Your task to perform on an android device: Go to Amazon Image 0: 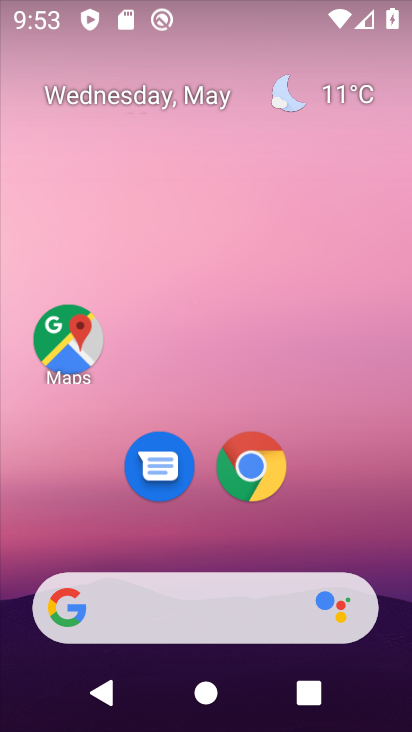
Step 0: drag from (312, 582) to (268, 2)
Your task to perform on an android device: Go to Amazon Image 1: 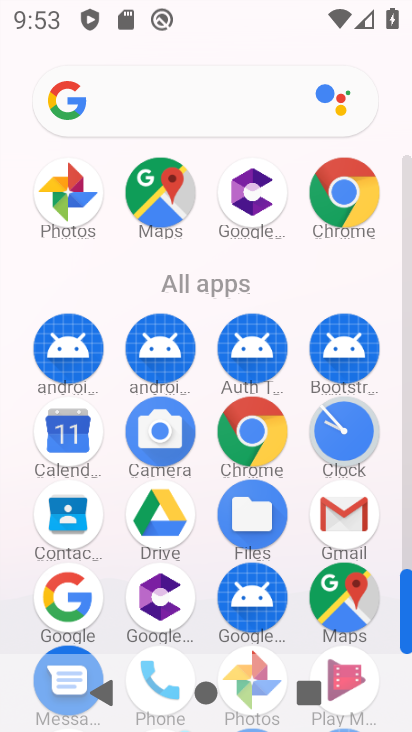
Step 1: click (339, 466)
Your task to perform on an android device: Go to Amazon Image 2: 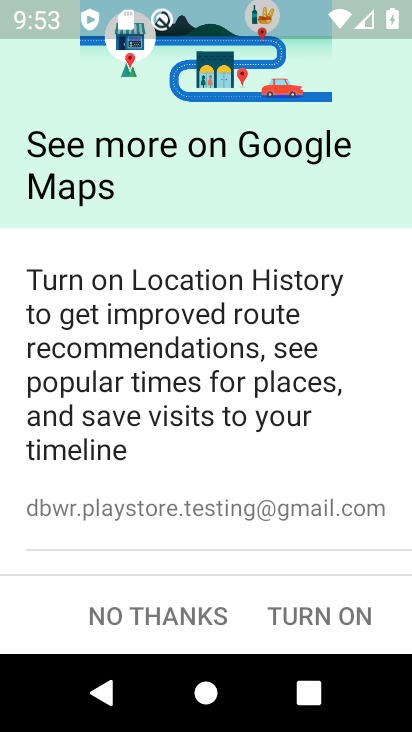
Step 2: press home button
Your task to perform on an android device: Go to Amazon Image 3: 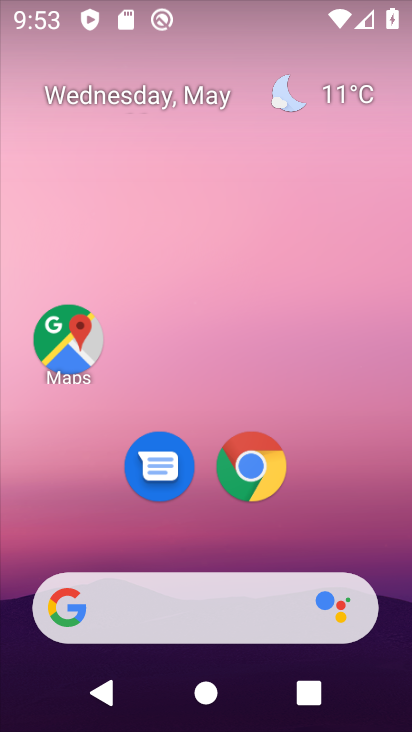
Step 3: click (255, 490)
Your task to perform on an android device: Go to Amazon Image 4: 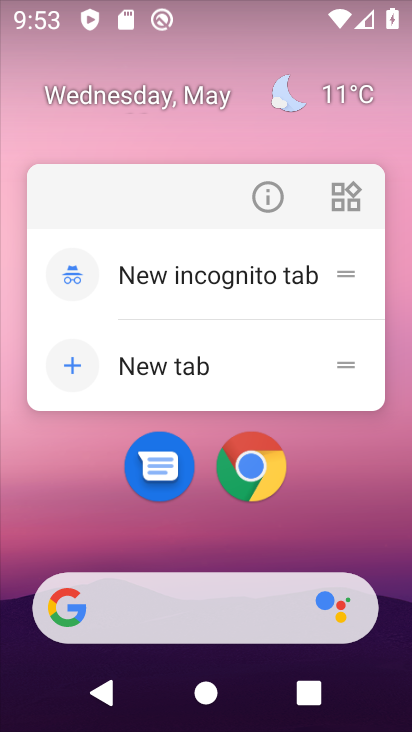
Step 4: click (252, 482)
Your task to perform on an android device: Go to Amazon Image 5: 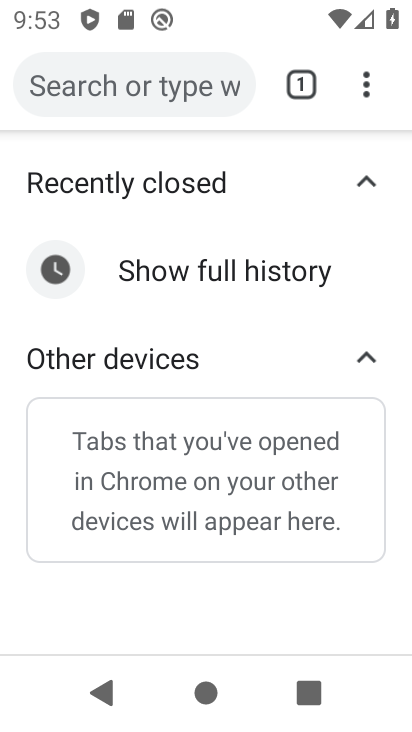
Step 5: click (297, 80)
Your task to perform on an android device: Go to Amazon Image 6: 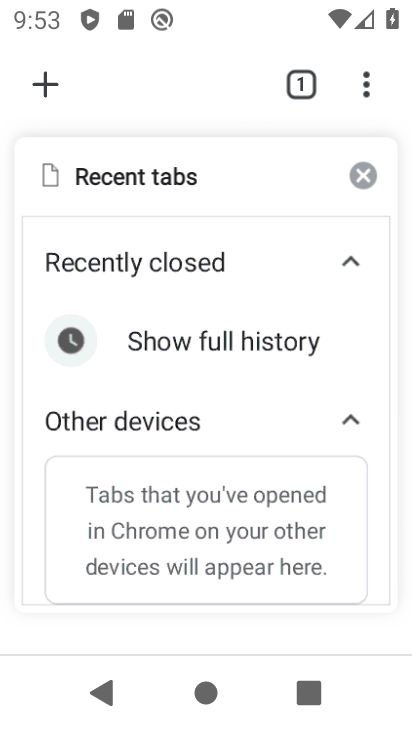
Step 6: click (42, 73)
Your task to perform on an android device: Go to Amazon Image 7: 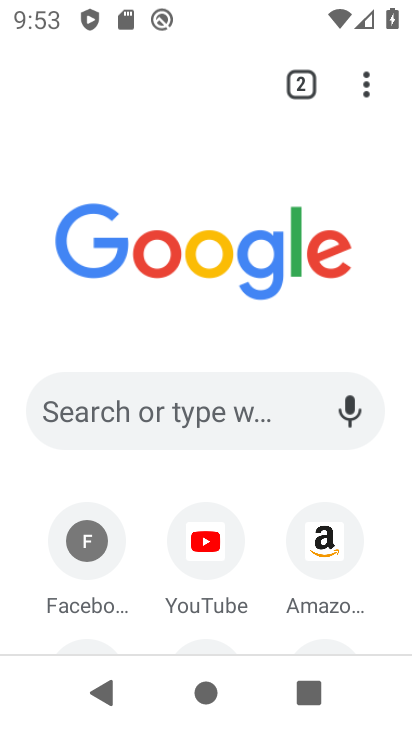
Step 7: click (335, 569)
Your task to perform on an android device: Go to Amazon Image 8: 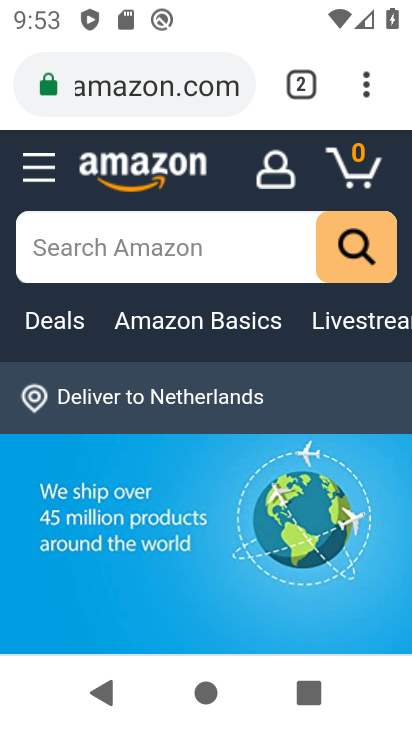
Step 8: task complete